Your task to perform on an android device: See recent photos Image 0: 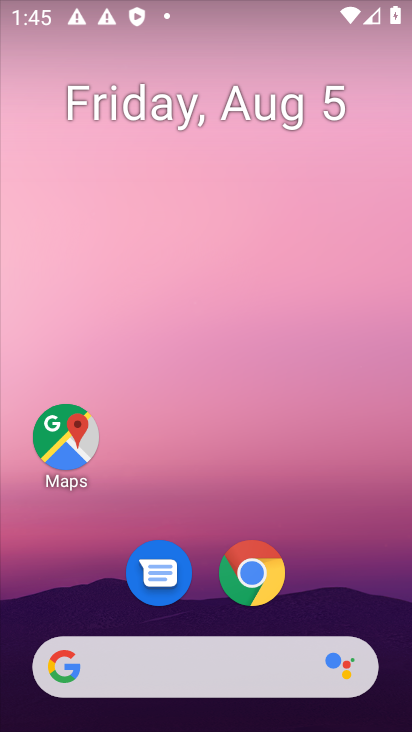
Step 0: drag from (345, 600) to (337, 295)
Your task to perform on an android device: See recent photos Image 1: 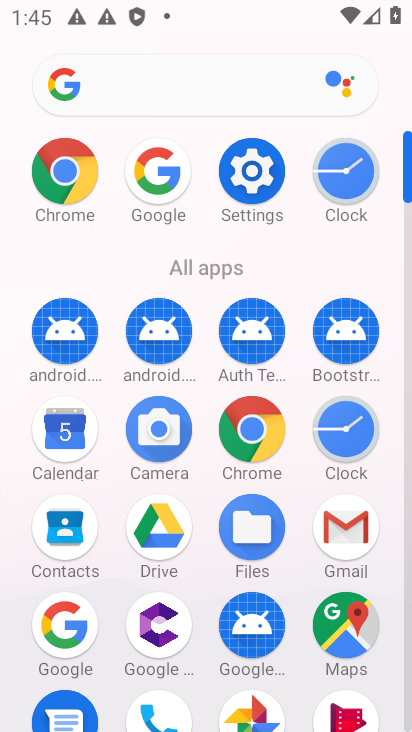
Step 1: drag from (388, 571) to (390, 441)
Your task to perform on an android device: See recent photos Image 2: 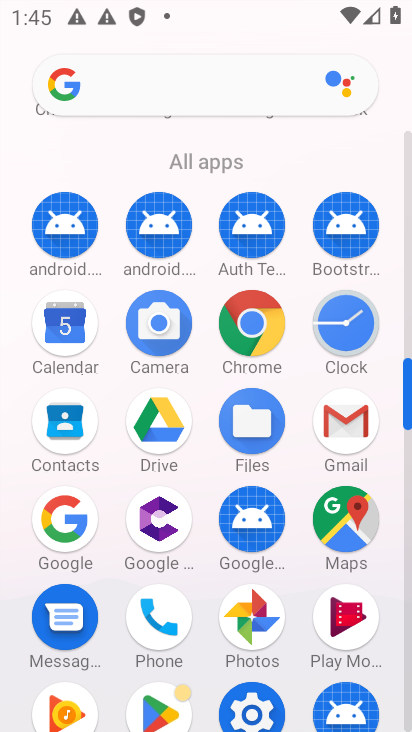
Step 2: drag from (386, 582) to (390, 449)
Your task to perform on an android device: See recent photos Image 3: 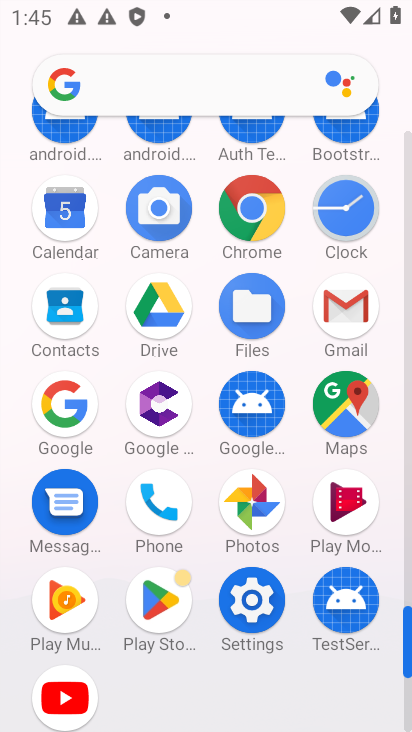
Step 3: click (261, 496)
Your task to perform on an android device: See recent photos Image 4: 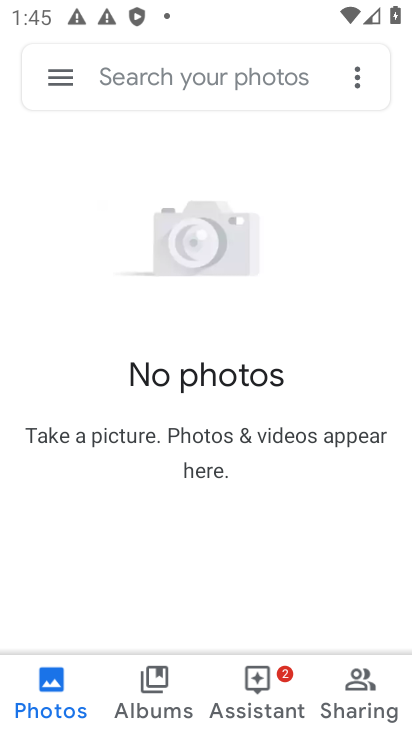
Step 4: task complete